Your task to perform on an android device: turn vacation reply on in the gmail app Image 0: 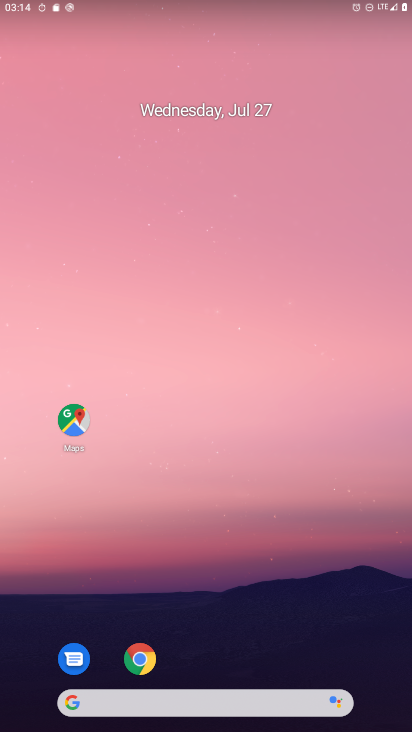
Step 0: click (233, 56)
Your task to perform on an android device: turn vacation reply on in the gmail app Image 1: 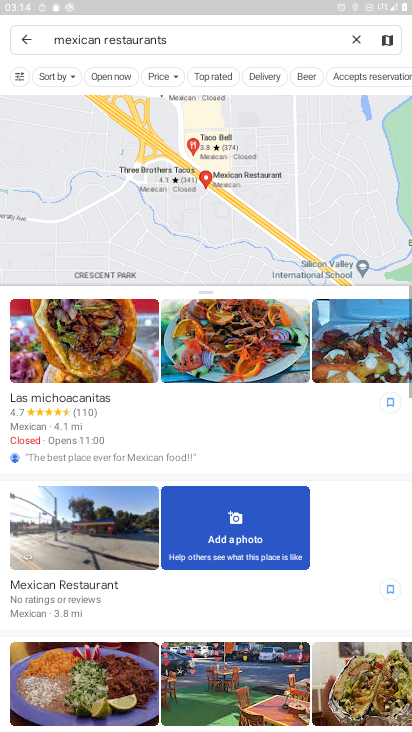
Step 1: press home button
Your task to perform on an android device: turn vacation reply on in the gmail app Image 2: 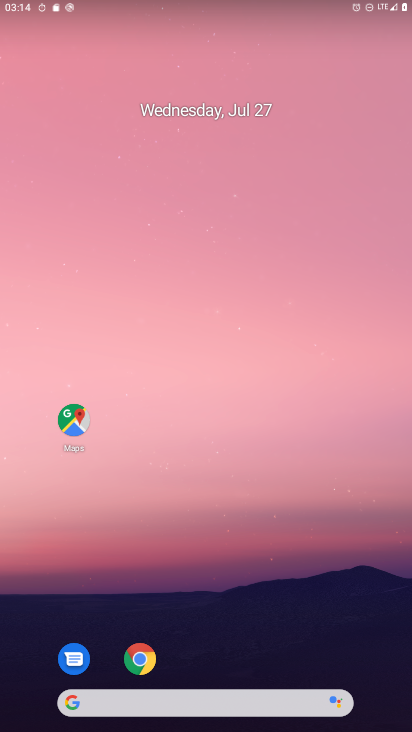
Step 2: drag from (328, 659) to (320, 99)
Your task to perform on an android device: turn vacation reply on in the gmail app Image 3: 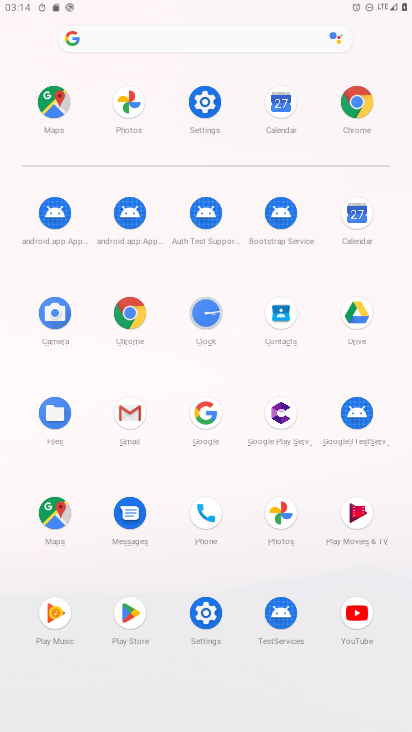
Step 3: click (126, 414)
Your task to perform on an android device: turn vacation reply on in the gmail app Image 4: 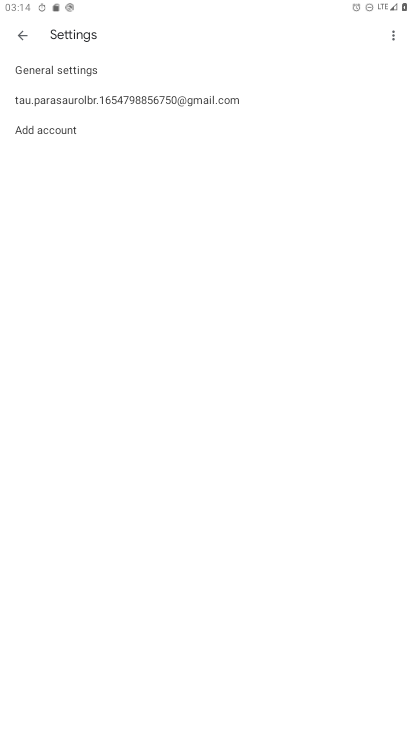
Step 4: click (113, 107)
Your task to perform on an android device: turn vacation reply on in the gmail app Image 5: 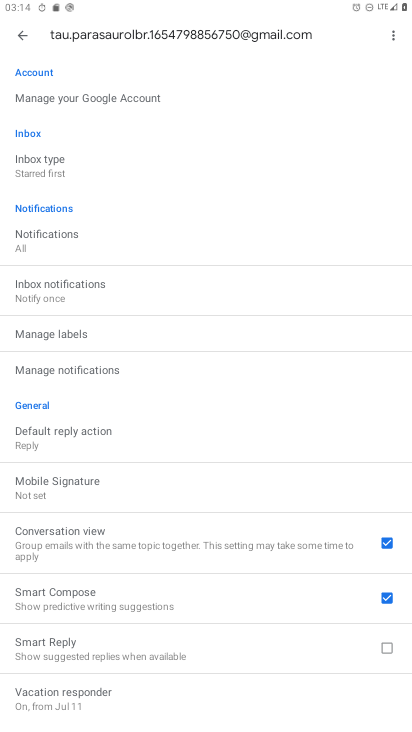
Step 5: drag from (242, 424) to (297, 166)
Your task to perform on an android device: turn vacation reply on in the gmail app Image 6: 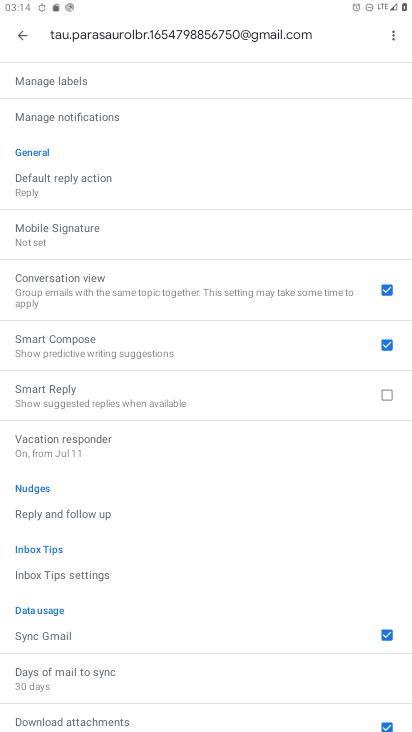
Step 6: click (88, 455)
Your task to perform on an android device: turn vacation reply on in the gmail app Image 7: 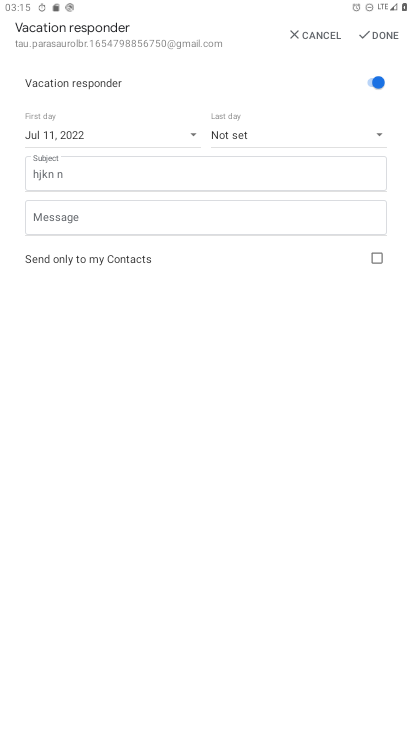
Step 7: task complete